Your task to perform on an android device: turn on javascript in the chrome app Image 0: 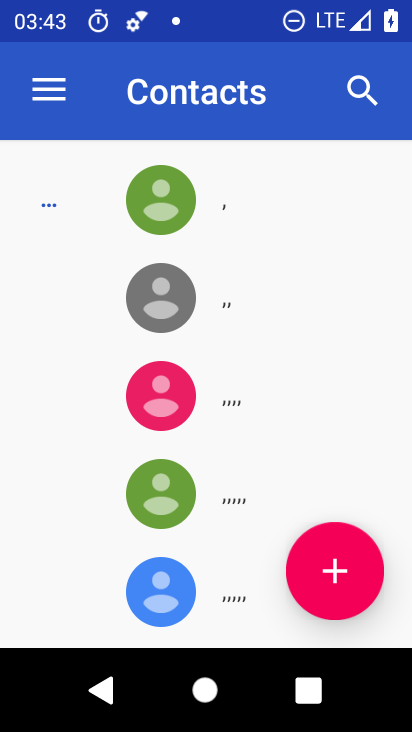
Step 0: press home button
Your task to perform on an android device: turn on javascript in the chrome app Image 1: 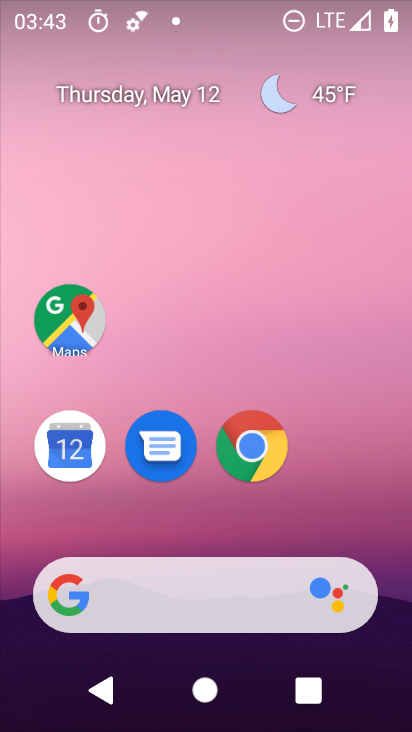
Step 1: click (263, 452)
Your task to perform on an android device: turn on javascript in the chrome app Image 2: 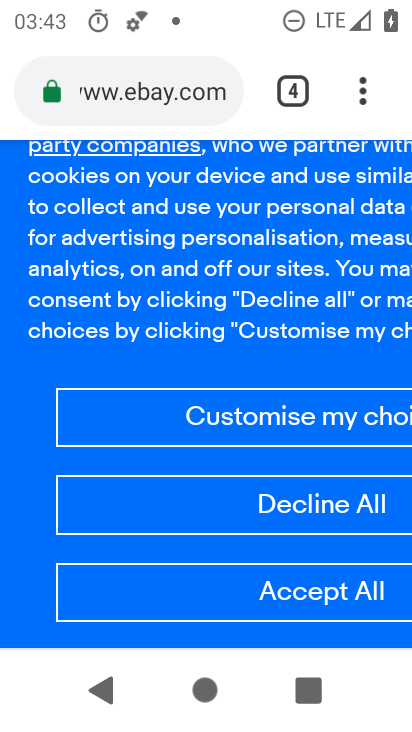
Step 2: drag from (359, 102) to (159, 458)
Your task to perform on an android device: turn on javascript in the chrome app Image 3: 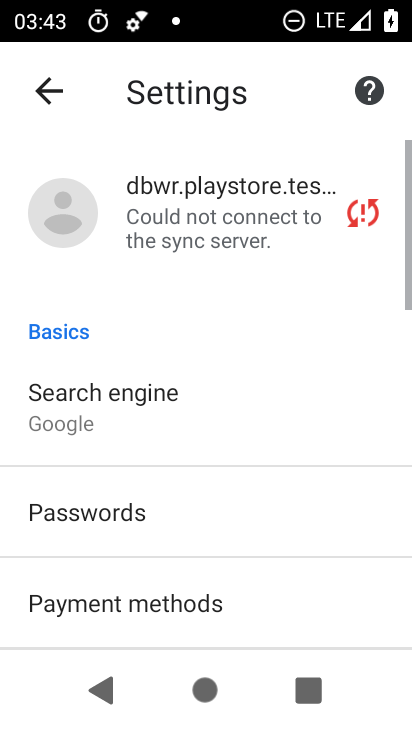
Step 3: drag from (238, 574) to (254, 186)
Your task to perform on an android device: turn on javascript in the chrome app Image 4: 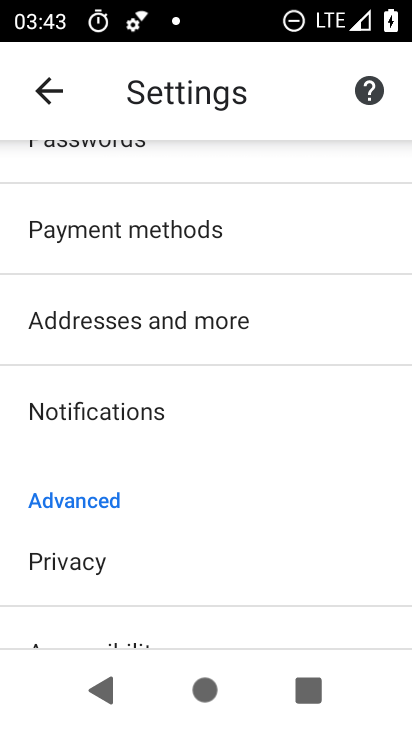
Step 4: drag from (225, 465) to (258, 214)
Your task to perform on an android device: turn on javascript in the chrome app Image 5: 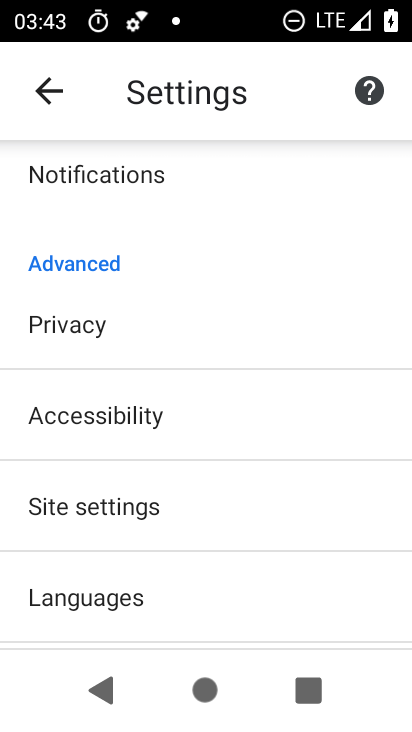
Step 5: drag from (194, 543) to (199, 437)
Your task to perform on an android device: turn on javascript in the chrome app Image 6: 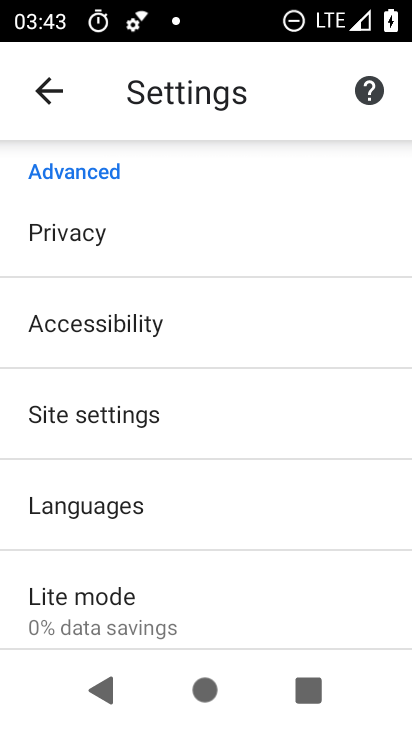
Step 6: click (125, 424)
Your task to perform on an android device: turn on javascript in the chrome app Image 7: 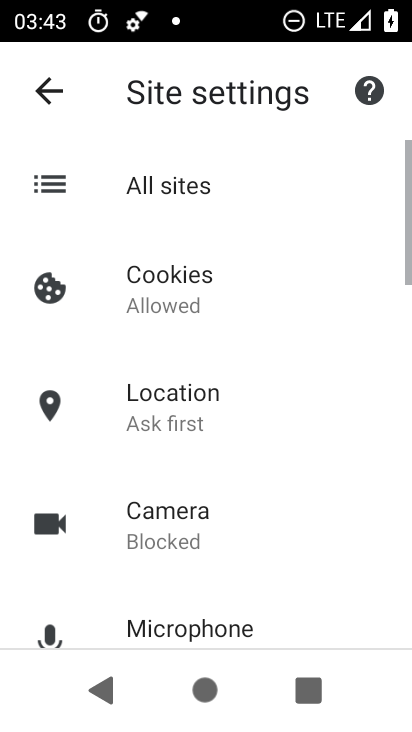
Step 7: drag from (216, 531) to (231, 299)
Your task to perform on an android device: turn on javascript in the chrome app Image 8: 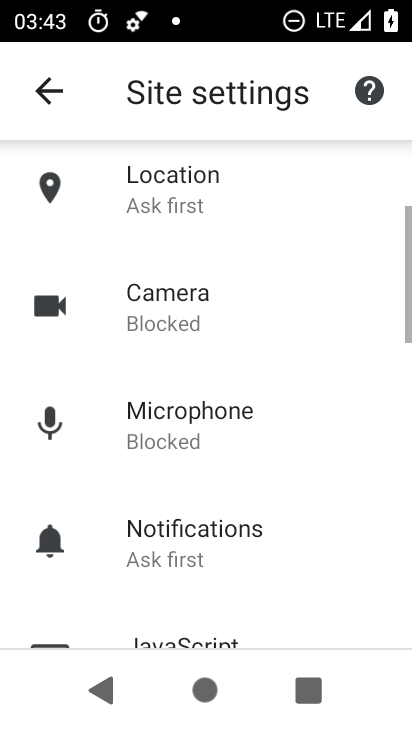
Step 8: drag from (249, 484) to (238, 306)
Your task to perform on an android device: turn on javascript in the chrome app Image 9: 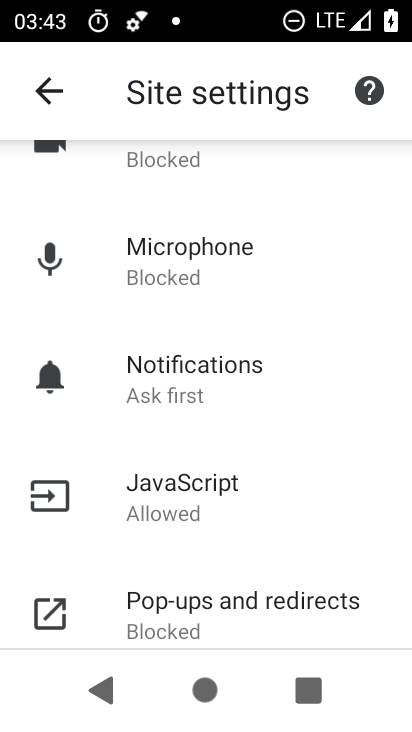
Step 9: click (209, 470)
Your task to perform on an android device: turn on javascript in the chrome app Image 10: 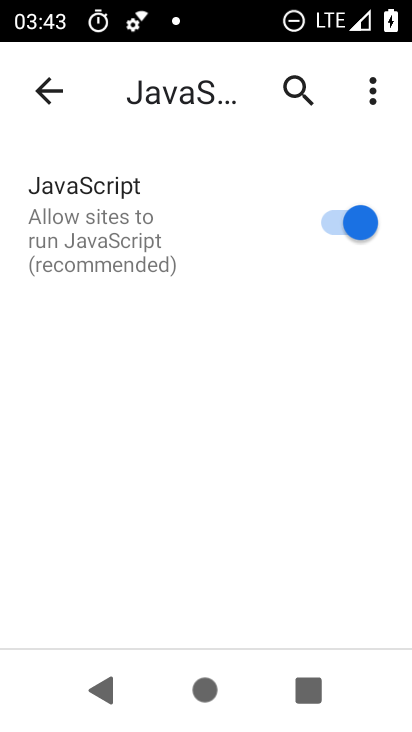
Step 10: task complete